Your task to perform on an android device: all mails in gmail Image 0: 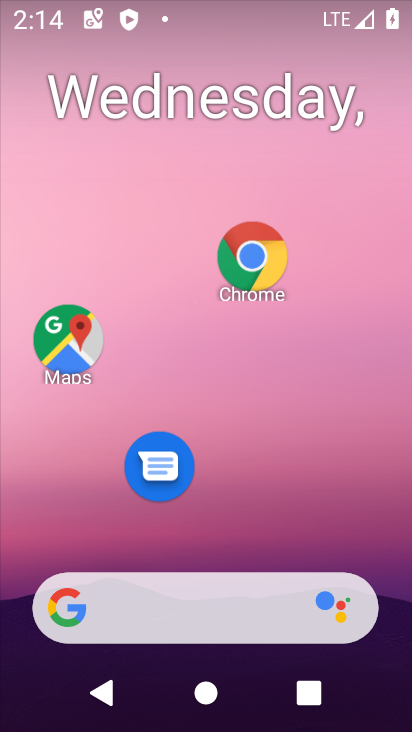
Step 0: drag from (320, 517) to (308, 122)
Your task to perform on an android device: all mails in gmail Image 1: 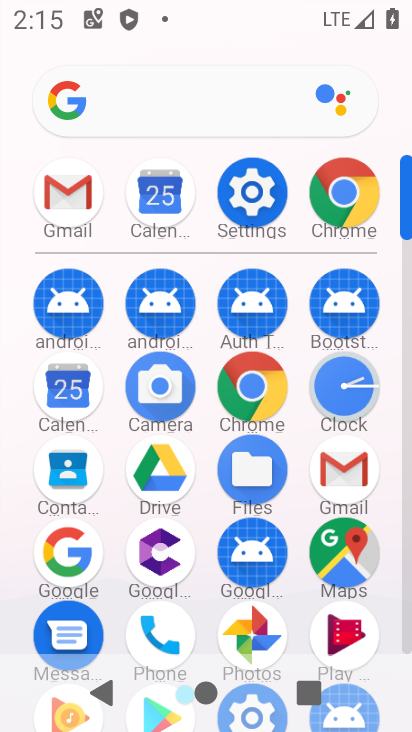
Step 1: click (402, 518)
Your task to perform on an android device: all mails in gmail Image 2: 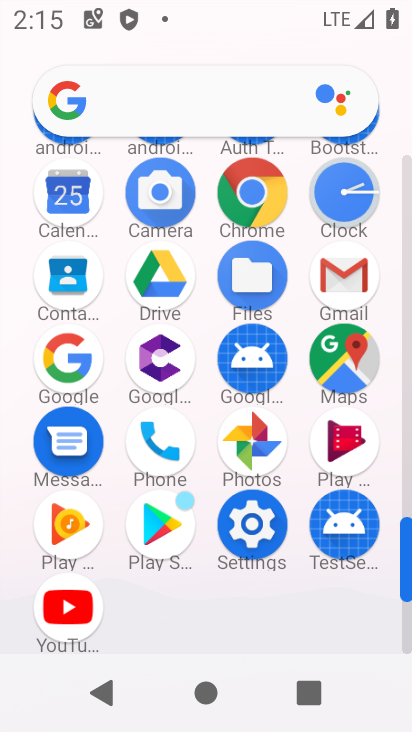
Step 2: click (355, 279)
Your task to perform on an android device: all mails in gmail Image 3: 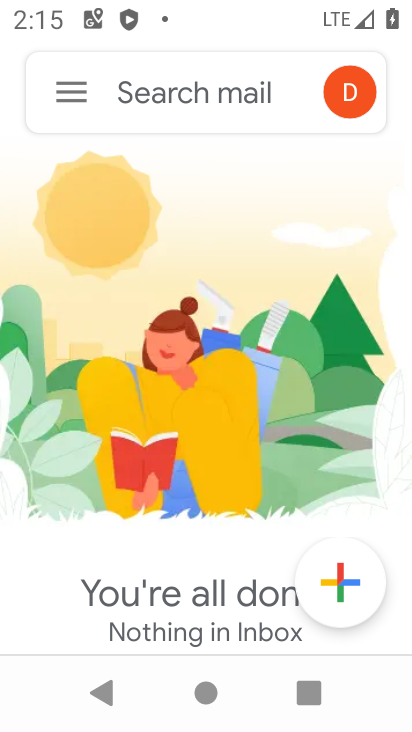
Step 3: click (52, 91)
Your task to perform on an android device: all mails in gmail Image 4: 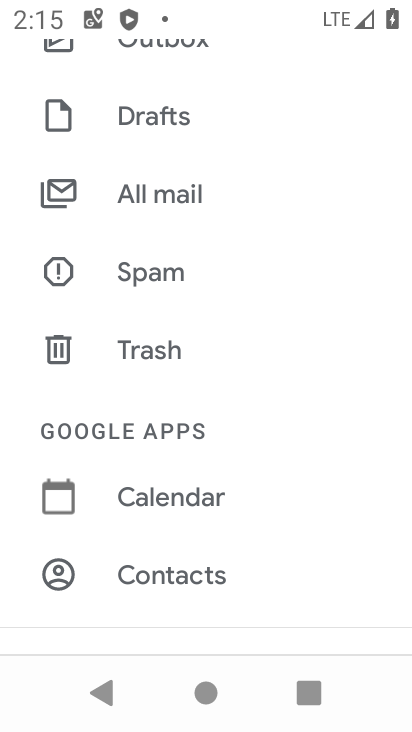
Step 4: drag from (197, 106) to (319, 716)
Your task to perform on an android device: all mails in gmail Image 5: 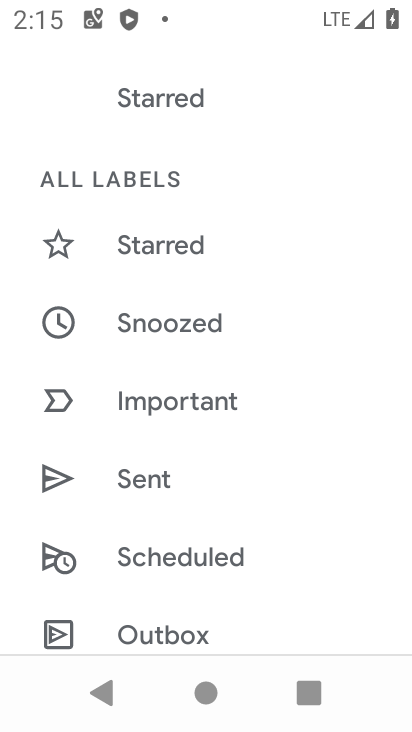
Step 5: drag from (167, 164) to (173, 728)
Your task to perform on an android device: all mails in gmail Image 6: 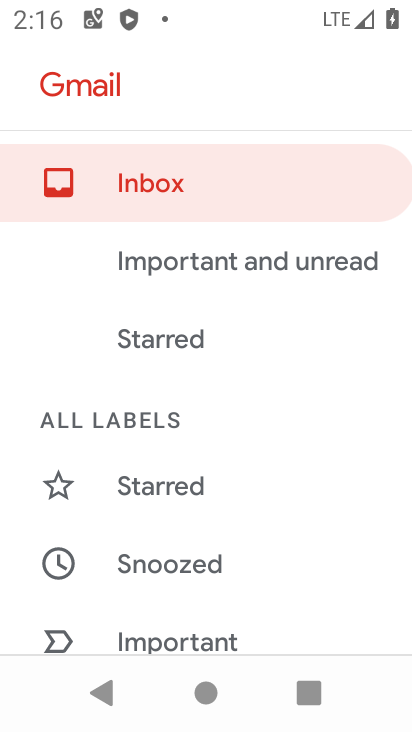
Step 6: drag from (149, 630) to (235, 82)
Your task to perform on an android device: all mails in gmail Image 7: 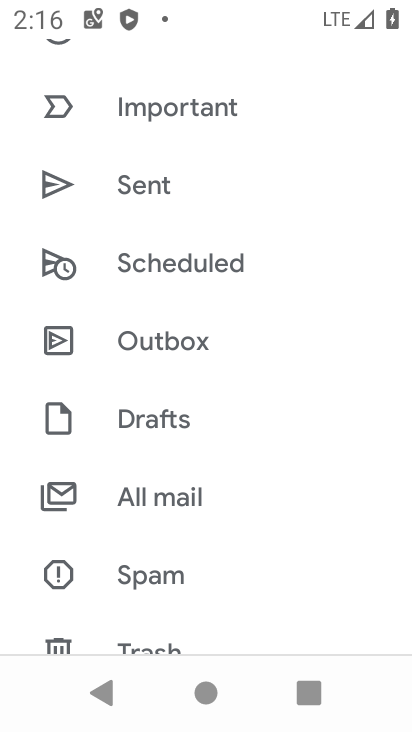
Step 7: click (177, 503)
Your task to perform on an android device: all mails in gmail Image 8: 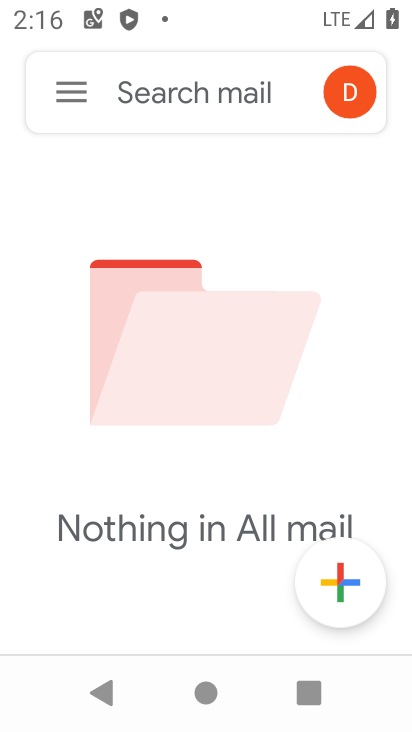
Step 8: task complete